Your task to perform on an android device: find photos in the google photos app Image 0: 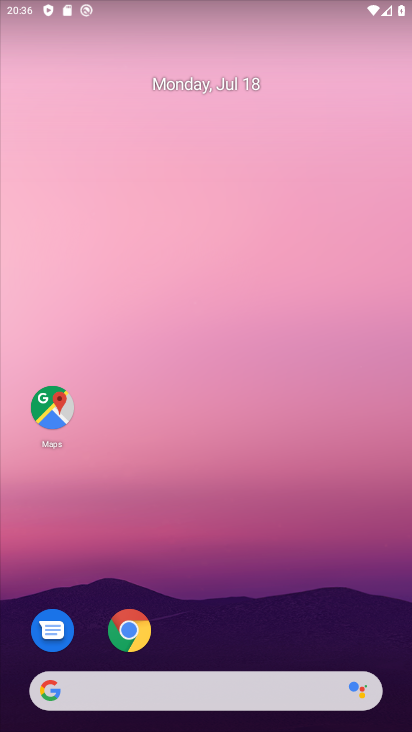
Step 0: drag from (193, 696) to (254, 332)
Your task to perform on an android device: find photos in the google photos app Image 1: 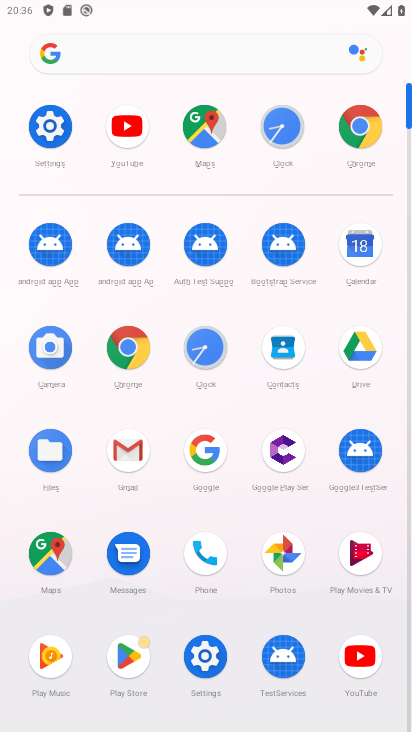
Step 1: click (282, 554)
Your task to perform on an android device: find photos in the google photos app Image 2: 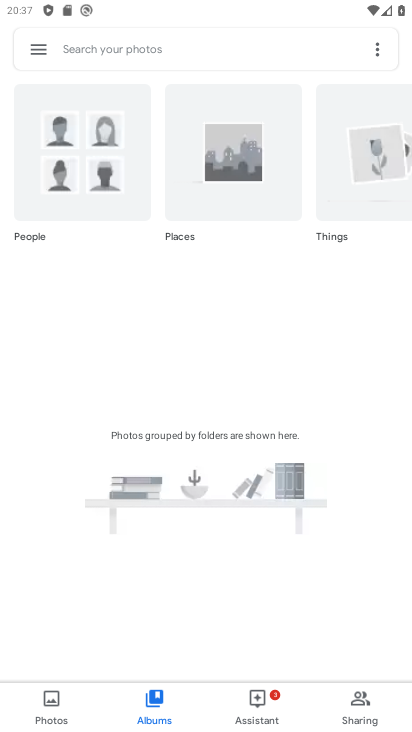
Step 2: task complete